Your task to perform on an android device: Open Google Image 0: 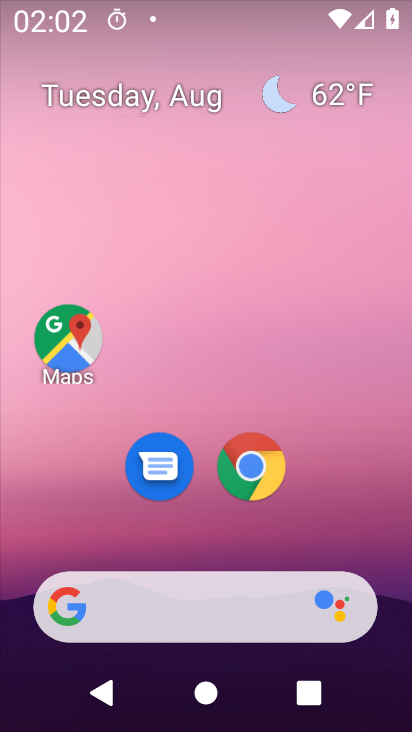
Step 0: press home button
Your task to perform on an android device: Open Google Image 1: 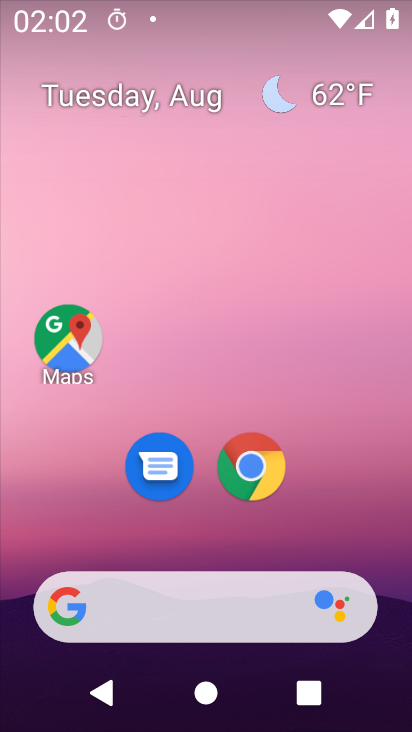
Step 1: drag from (329, 537) to (359, 145)
Your task to perform on an android device: Open Google Image 2: 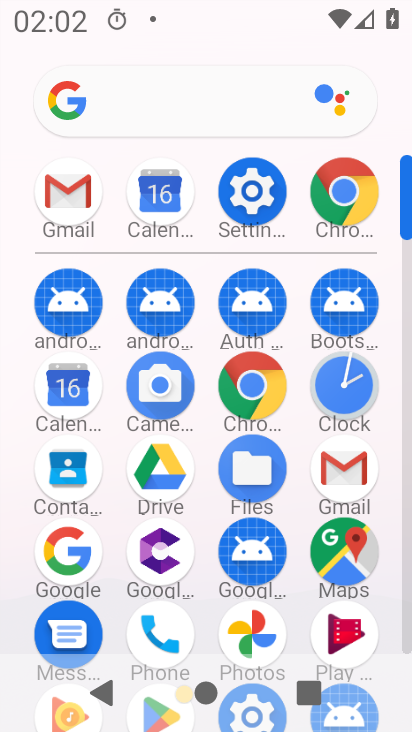
Step 2: click (72, 555)
Your task to perform on an android device: Open Google Image 3: 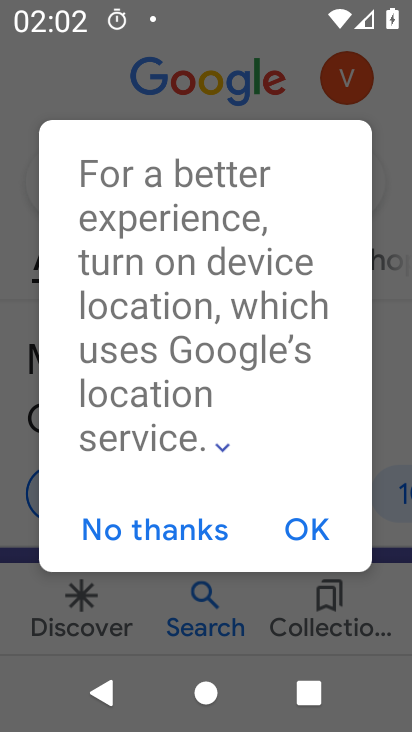
Step 3: click (317, 526)
Your task to perform on an android device: Open Google Image 4: 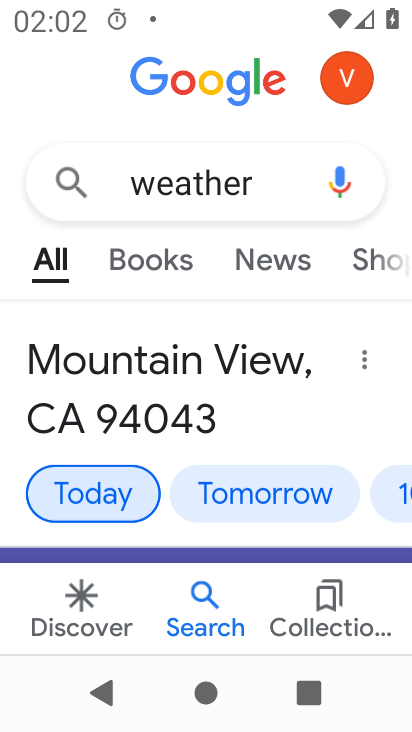
Step 4: task complete